Your task to perform on an android device: visit the assistant section in the google photos Image 0: 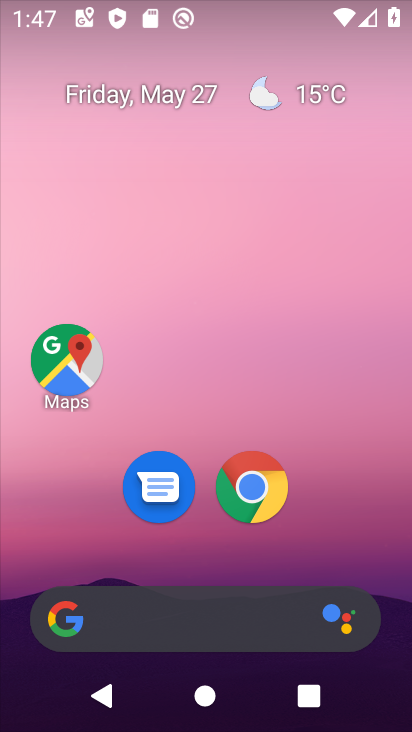
Step 0: drag from (229, 545) to (246, 202)
Your task to perform on an android device: visit the assistant section in the google photos Image 1: 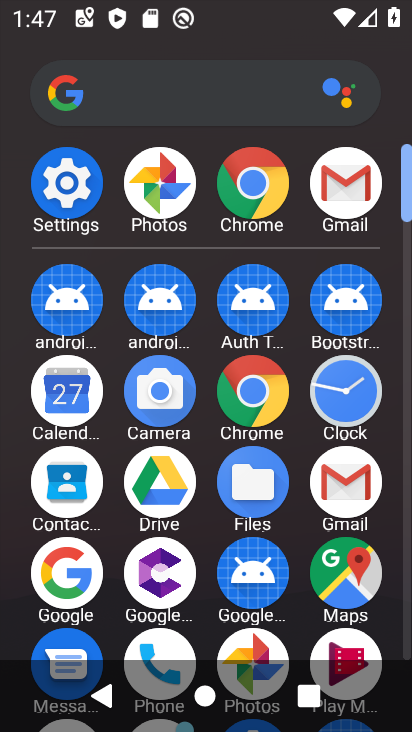
Step 1: click (140, 207)
Your task to perform on an android device: visit the assistant section in the google photos Image 2: 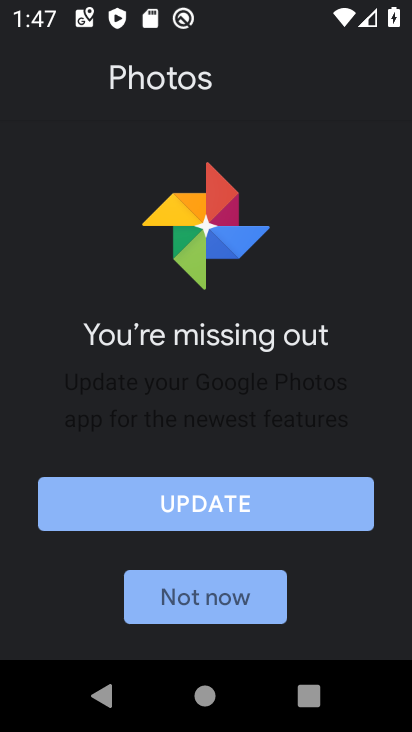
Step 2: click (218, 615)
Your task to perform on an android device: visit the assistant section in the google photos Image 3: 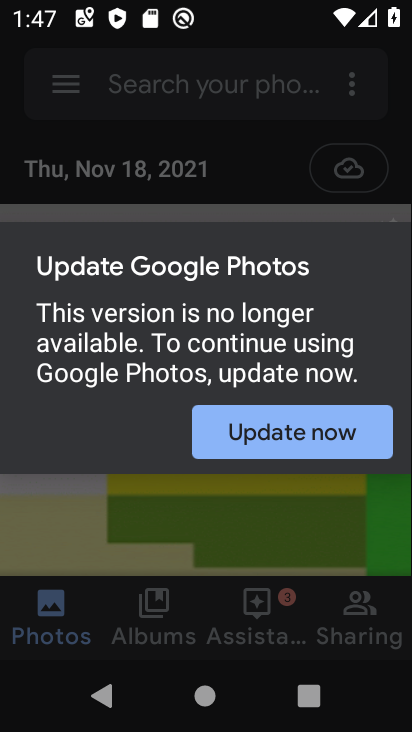
Step 3: click (291, 436)
Your task to perform on an android device: visit the assistant section in the google photos Image 4: 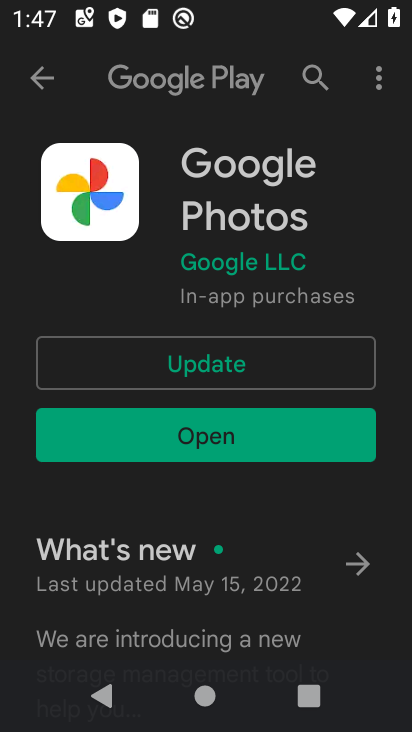
Step 4: click (253, 422)
Your task to perform on an android device: visit the assistant section in the google photos Image 5: 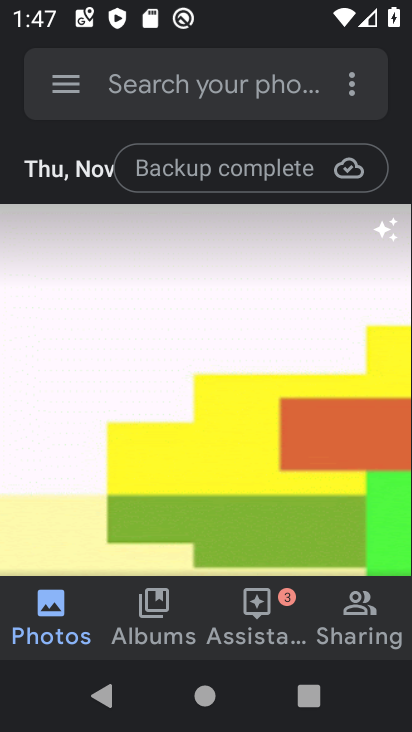
Step 5: click (259, 606)
Your task to perform on an android device: visit the assistant section in the google photos Image 6: 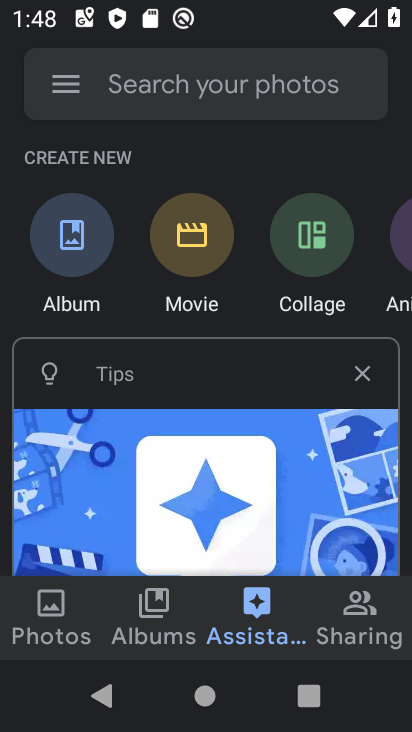
Step 6: task complete